Your task to perform on an android device: search for starred emails in the gmail app Image 0: 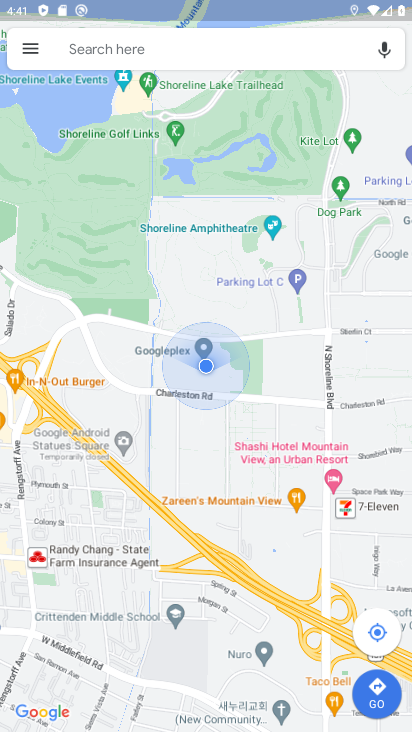
Step 0: press home button
Your task to perform on an android device: search for starred emails in the gmail app Image 1: 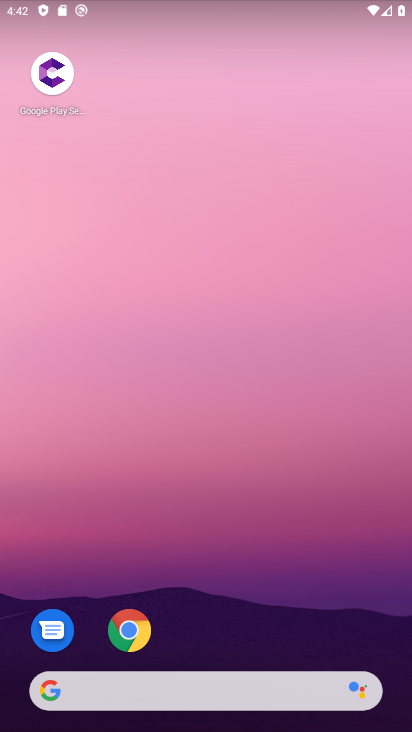
Step 1: drag from (221, 676) to (195, 304)
Your task to perform on an android device: search for starred emails in the gmail app Image 2: 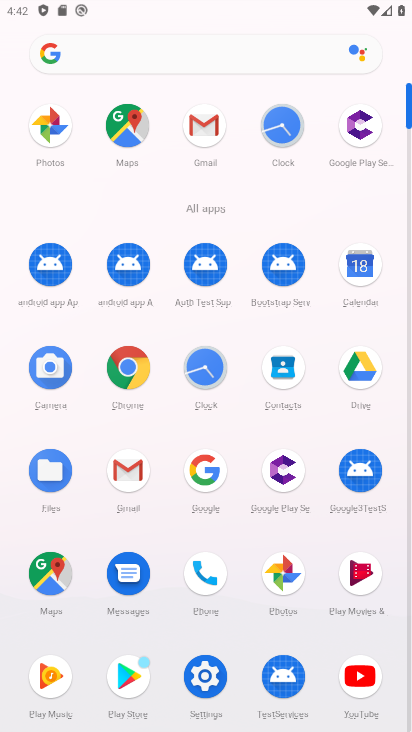
Step 2: click (200, 123)
Your task to perform on an android device: search for starred emails in the gmail app Image 3: 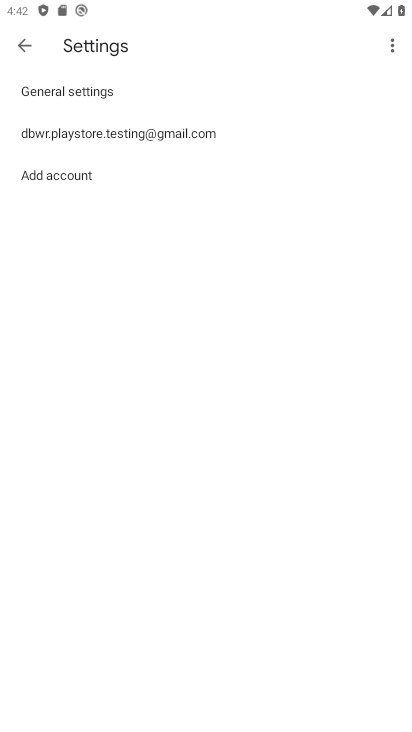
Step 3: click (17, 43)
Your task to perform on an android device: search for starred emails in the gmail app Image 4: 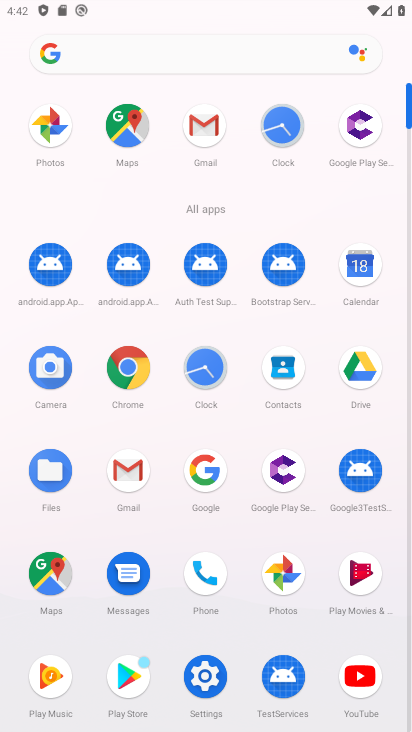
Step 4: click (213, 121)
Your task to perform on an android device: search for starred emails in the gmail app Image 5: 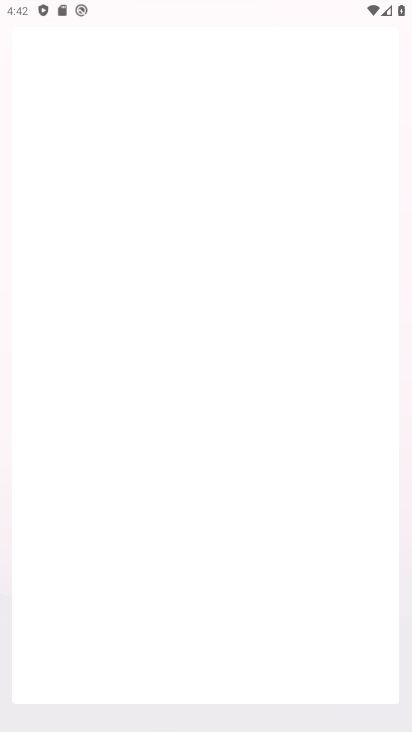
Step 5: click (209, 140)
Your task to perform on an android device: search for starred emails in the gmail app Image 6: 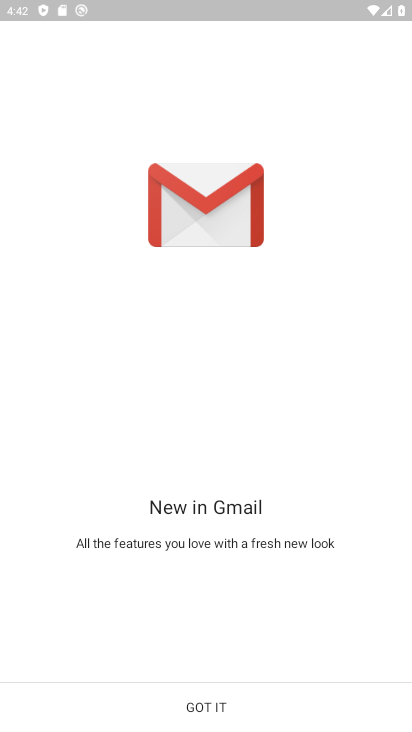
Step 6: click (210, 712)
Your task to perform on an android device: search for starred emails in the gmail app Image 7: 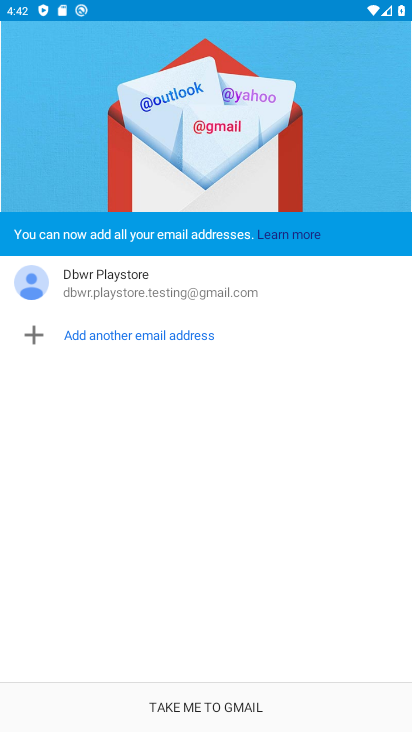
Step 7: click (209, 711)
Your task to perform on an android device: search for starred emails in the gmail app Image 8: 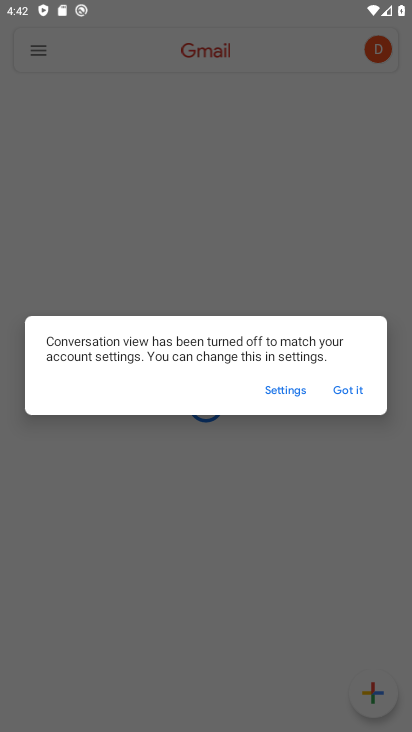
Step 8: click (356, 390)
Your task to perform on an android device: search for starred emails in the gmail app Image 9: 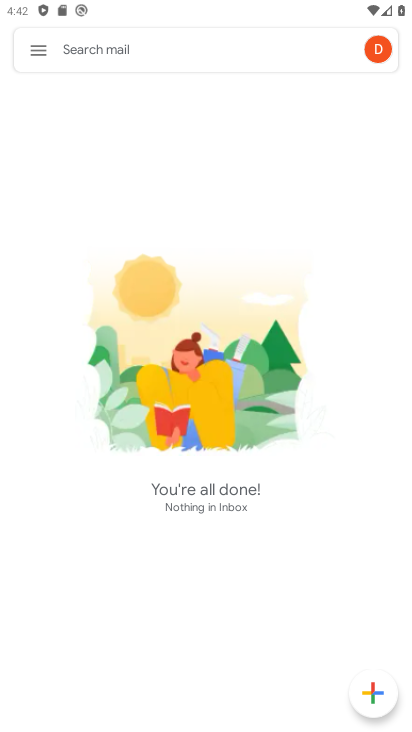
Step 9: click (43, 48)
Your task to perform on an android device: search for starred emails in the gmail app Image 10: 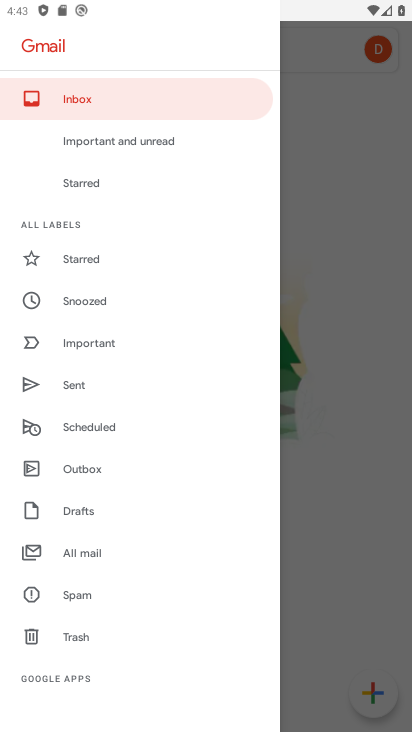
Step 10: click (77, 258)
Your task to perform on an android device: search for starred emails in the gmail app Image 11: 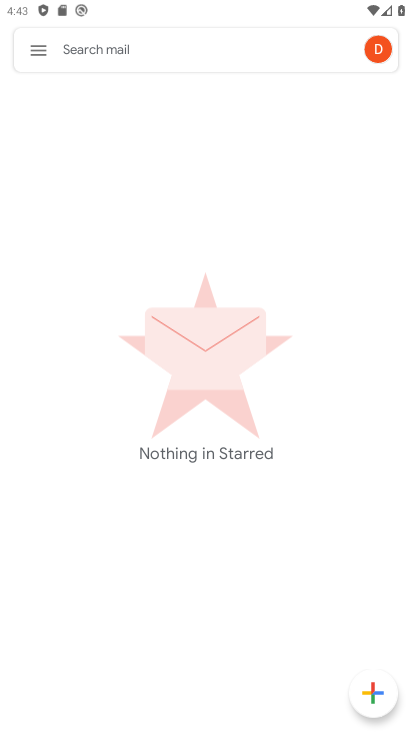
Step 11: task complete